Your task to perform on an android device: Open Yahoo.com Image 0: 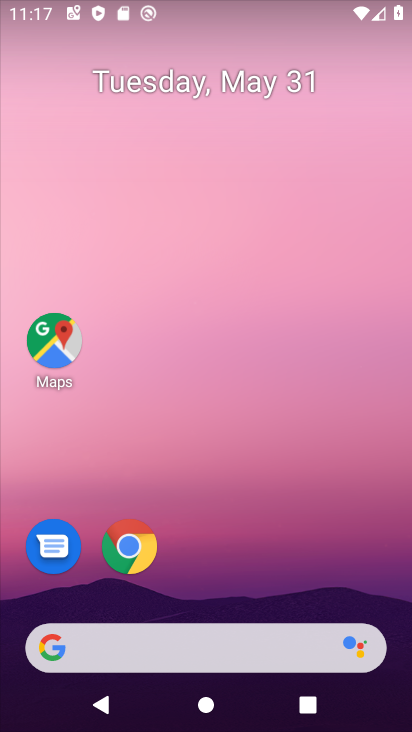
Step 0: click (137, 552)
Your task to perform on an android device: Open Yahoo.com Image 1: 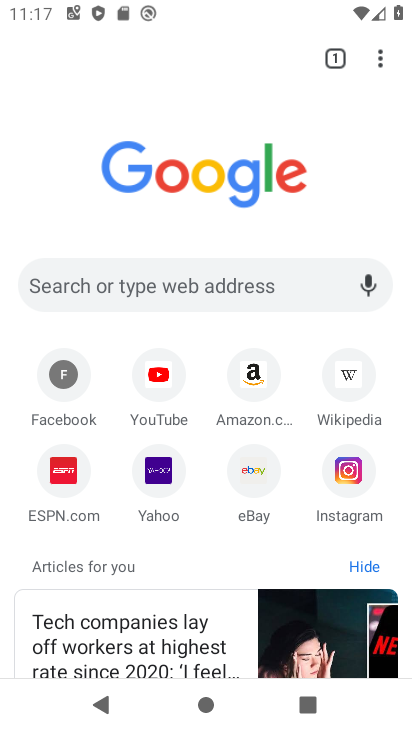
Step 1: click (168, 457)
Your task to perform on an android device: Open Yahoo.com Image 2: 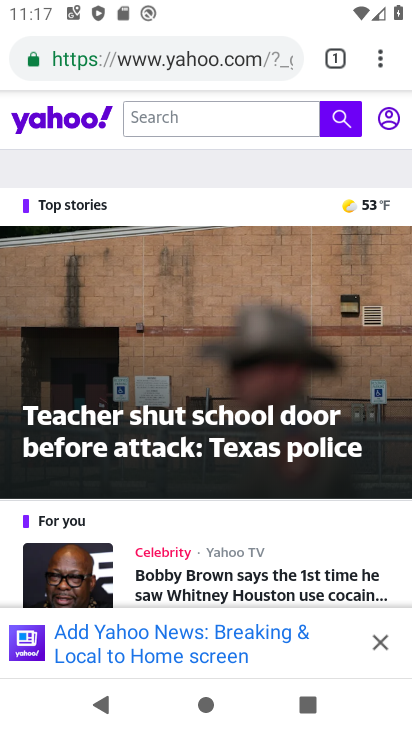
Step 2: task complete